Your task to perform on an android device: uninstall "eBay: The shopping marketplace" Image 0: 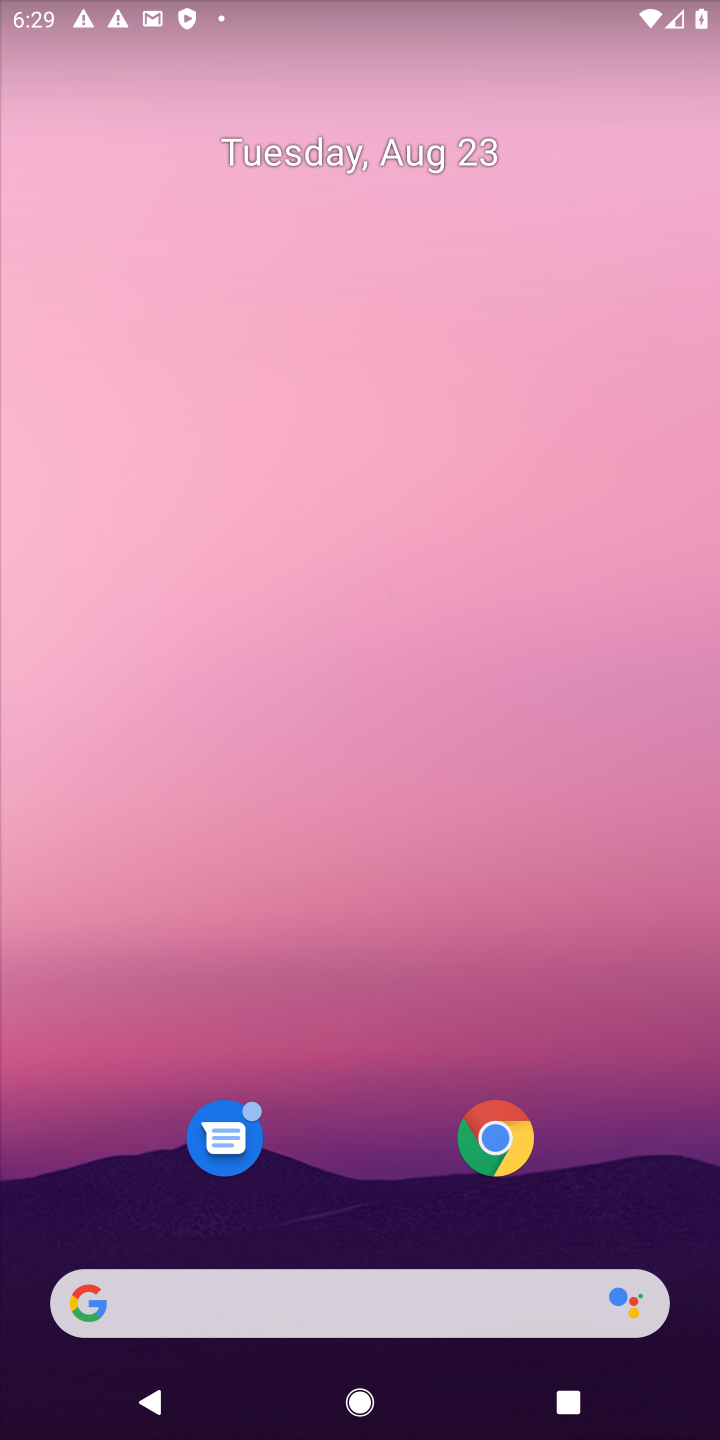
Step 0: drag from (354, 1167) to (391, 97)
Your task to perform on an android device: uninstall "eBay: The shopping marketplace" Image 1: 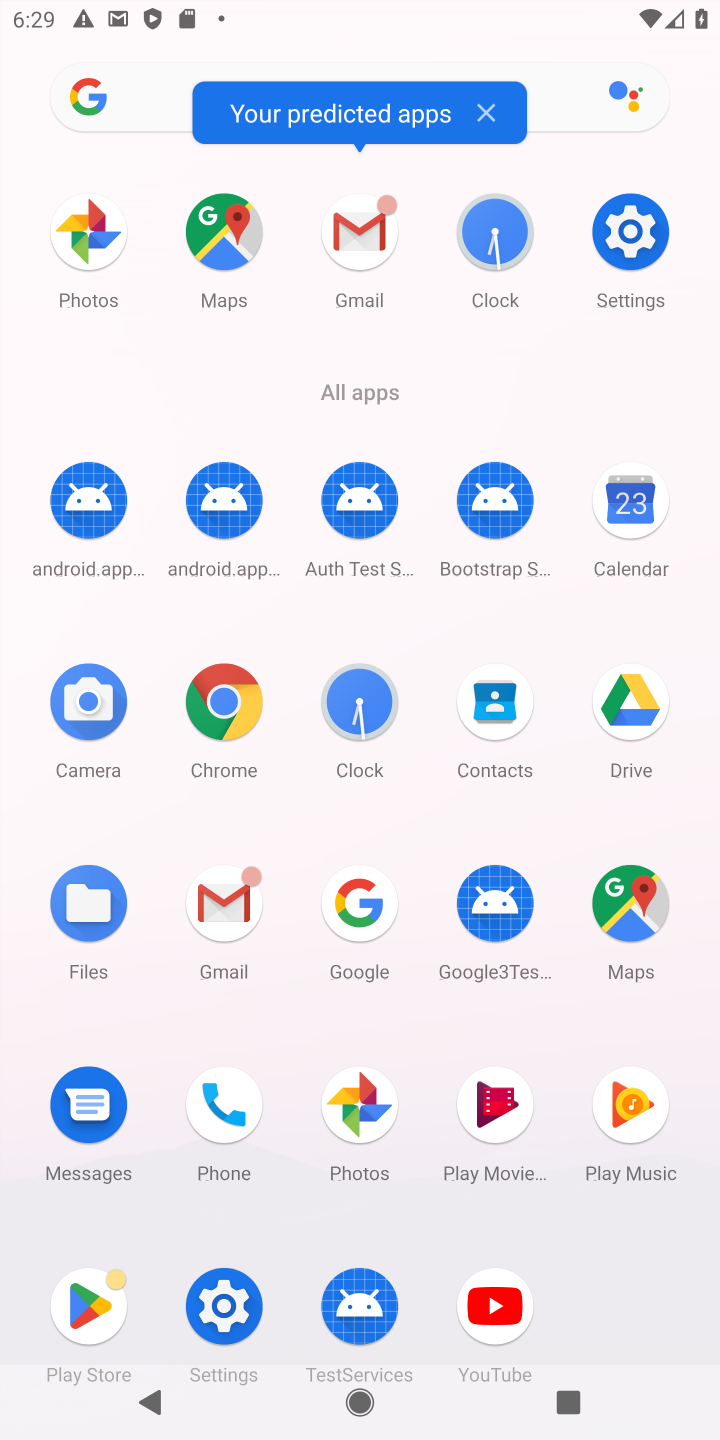
Step 1: click (85, 1303)
Your task to perform on an android device: uninstall "eBay: The shopping marketplace" Image 2: 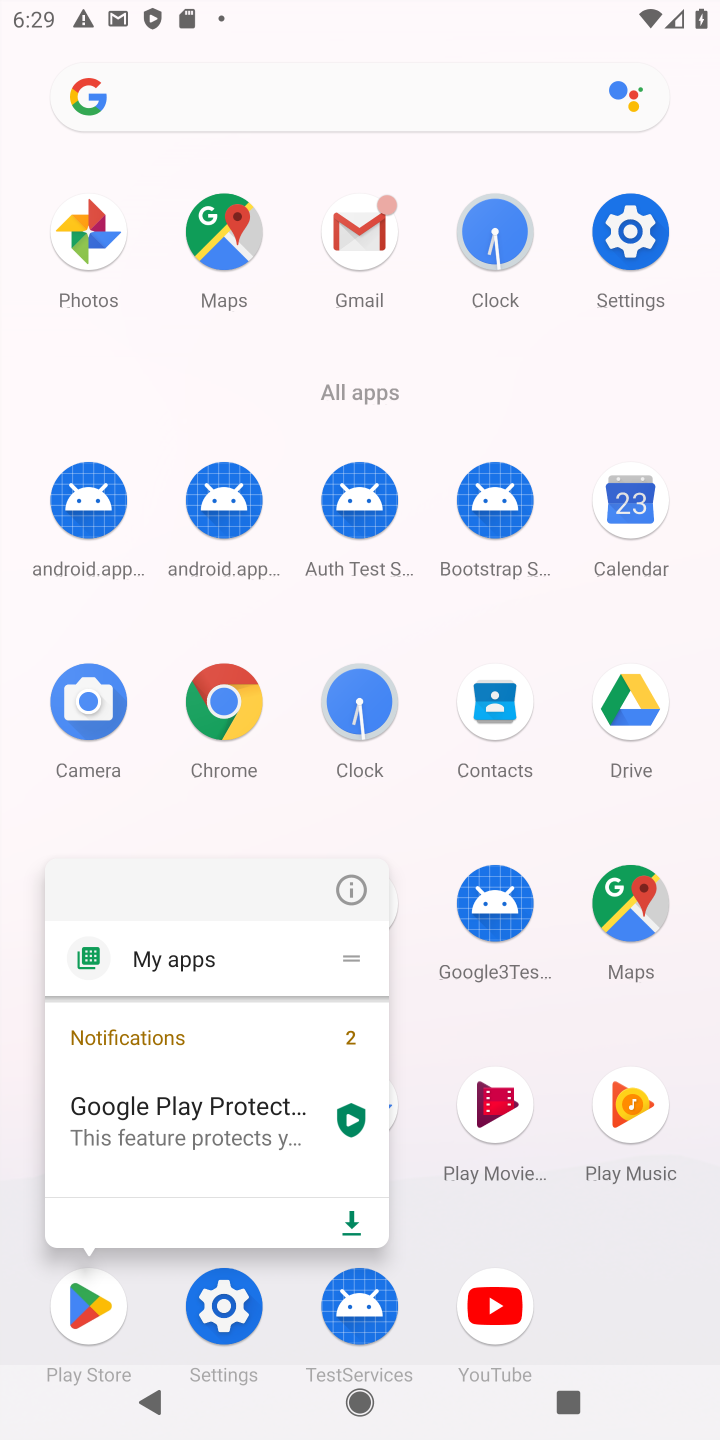
Step 2: click (85, 1303)
Your task to perform on an android device: uninstall "eBay: The shopping marketplace" Image 3: 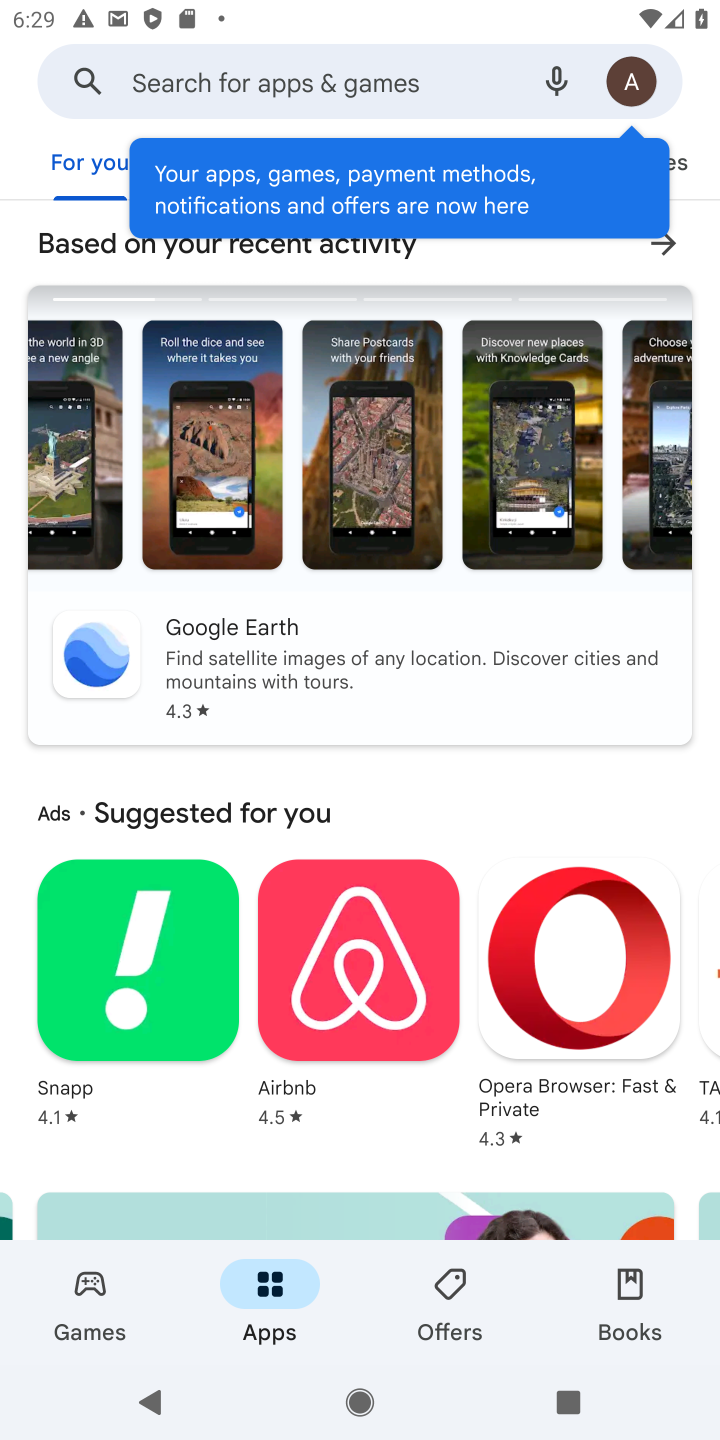
Step 3: click (427, 66)
Your task to perform on an android device: uninstall "eBay: The shopping marketplace" Image 4: 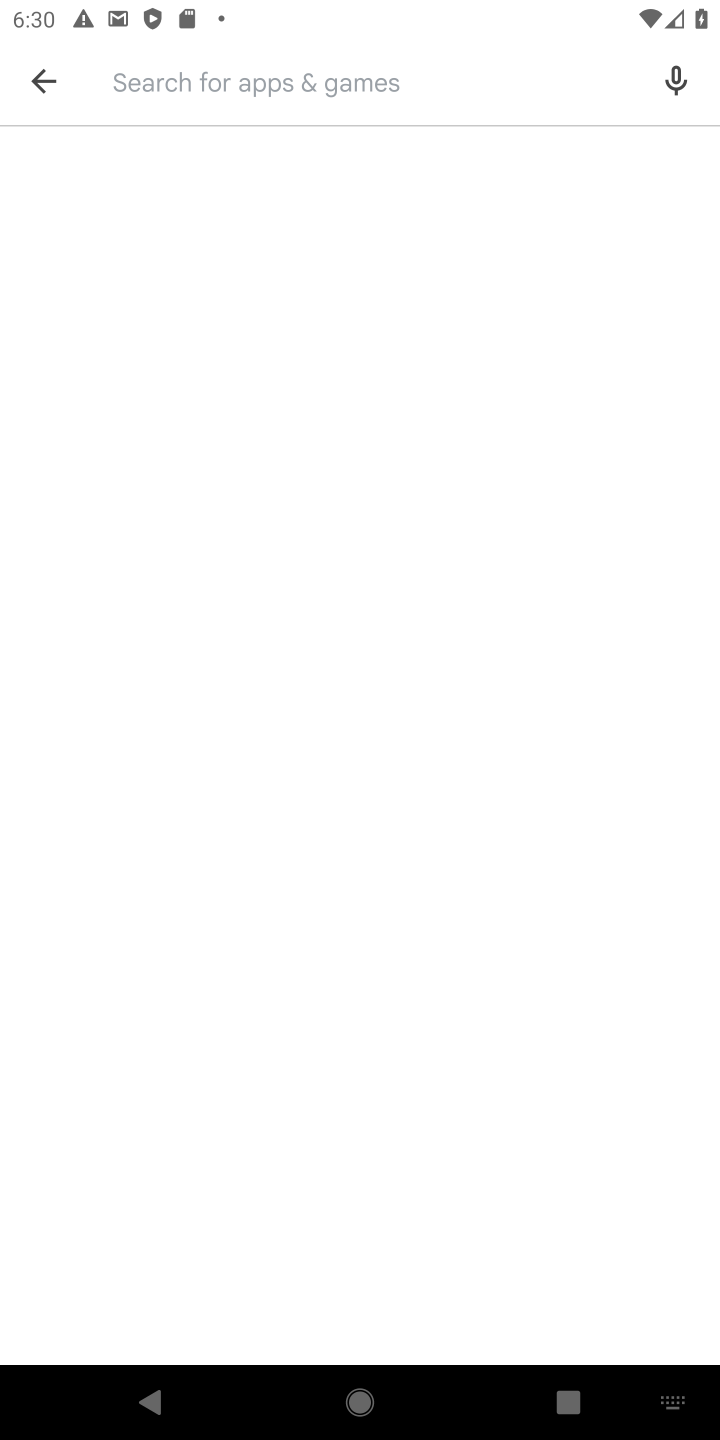
Step 4: type "eBay: "
Your task to perform on an android device: uninstall "eBay: The shopping marketplace" Image 5: 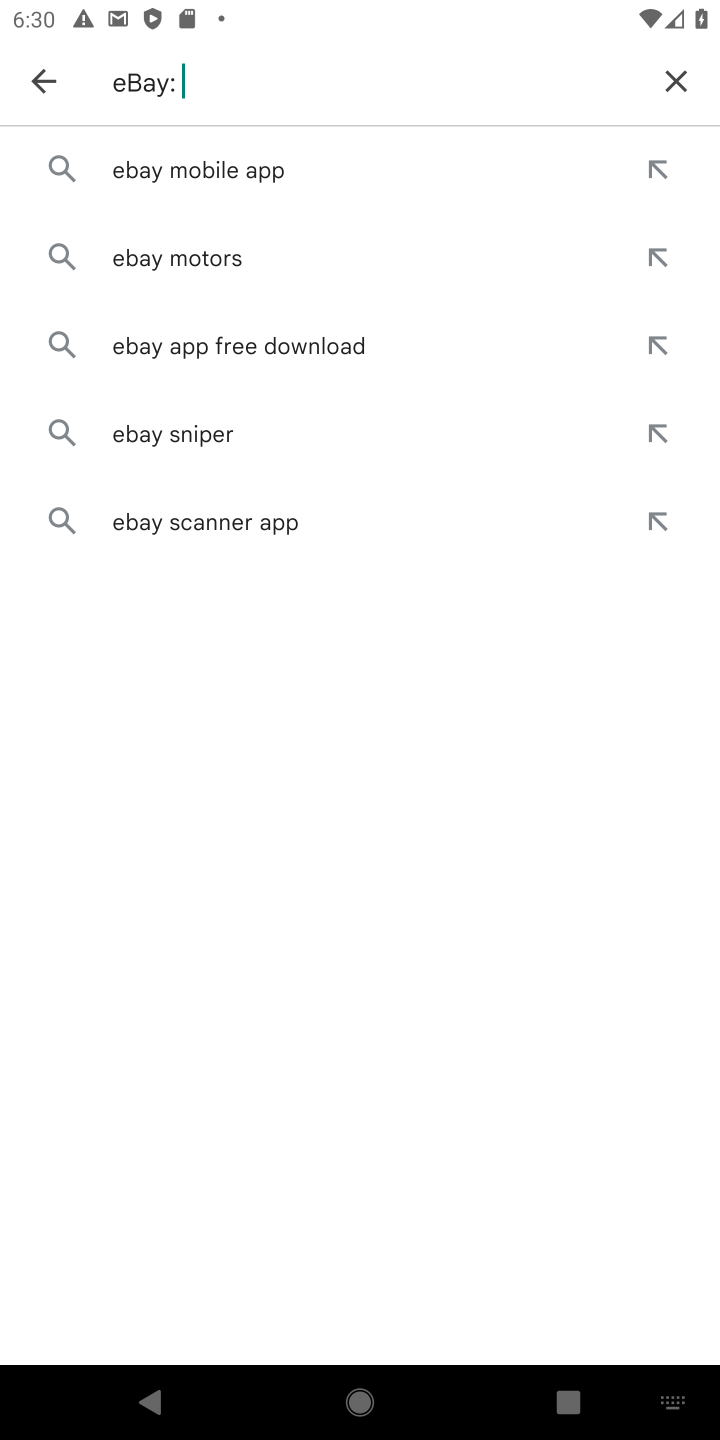
Step 5: click (148, 186)
Your task to perform on an android device: uninstall "eBay: The shopping marketplace" Image 6: 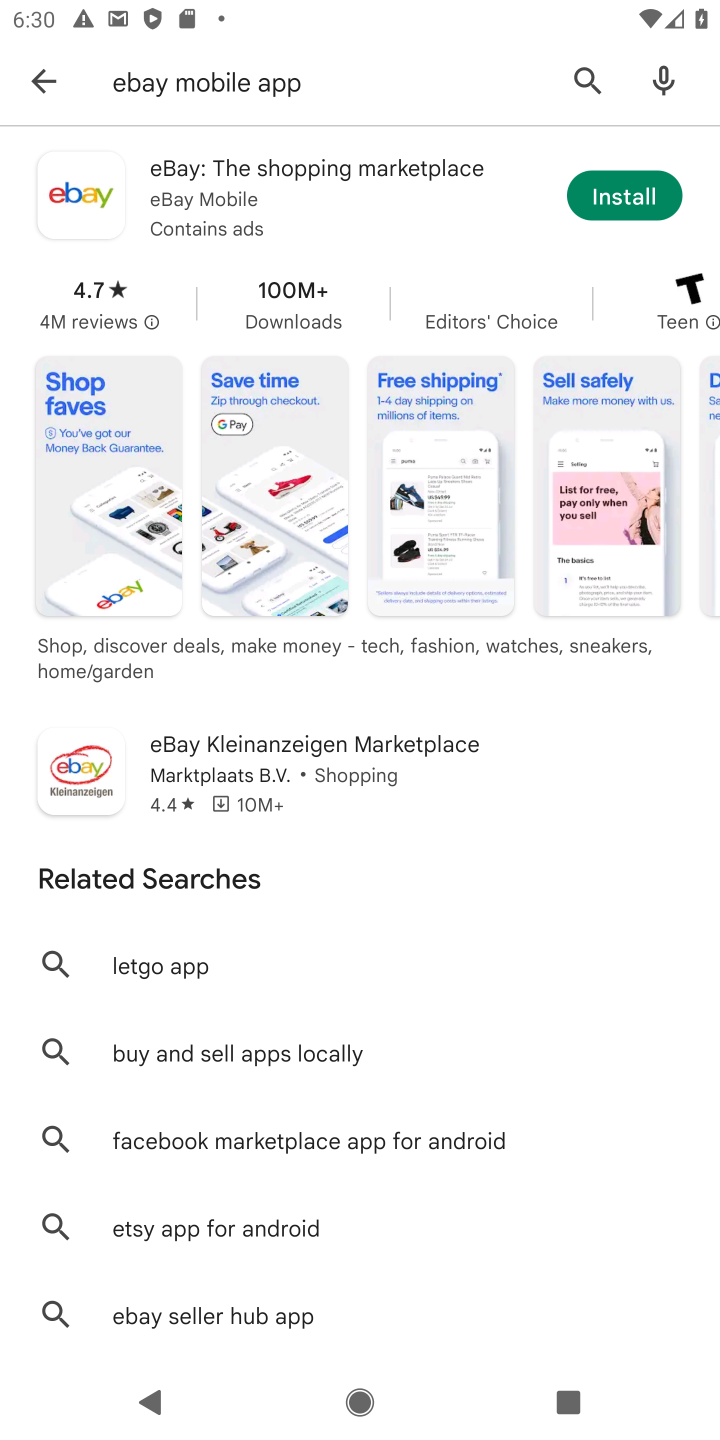
Step 6: click (239, 209)
Your task to perform on an android device: uninstall "eBay: The shopping marketplace" Image 7: 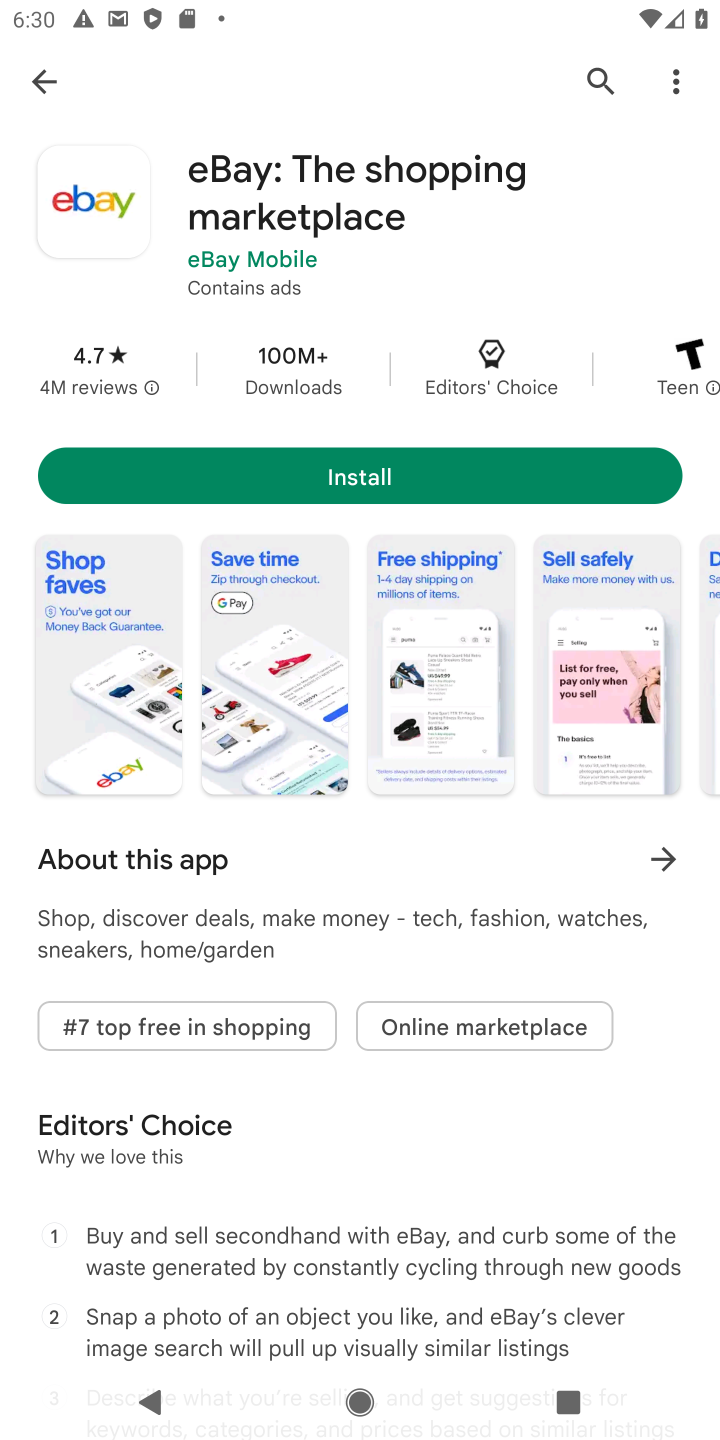
Step 7: task complete